Your task to perform on an android device: Open Google Maps and go to "Timeline" Image 0: 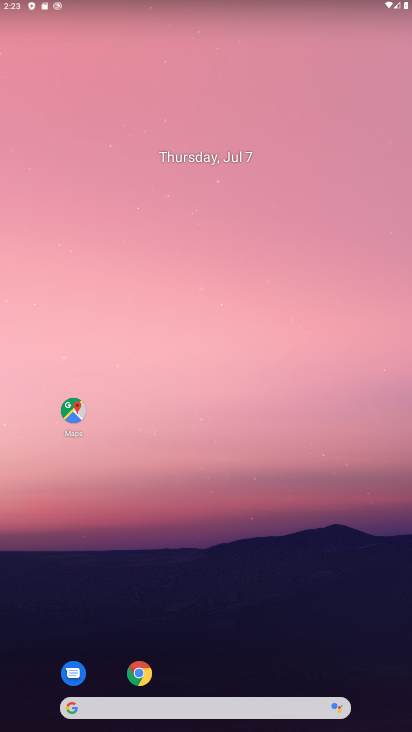
Step 0: drag from (206, 676) to (173, 111)
Your task to perform on an android device: Open Google Maps and go to "Timeline" Image 1: 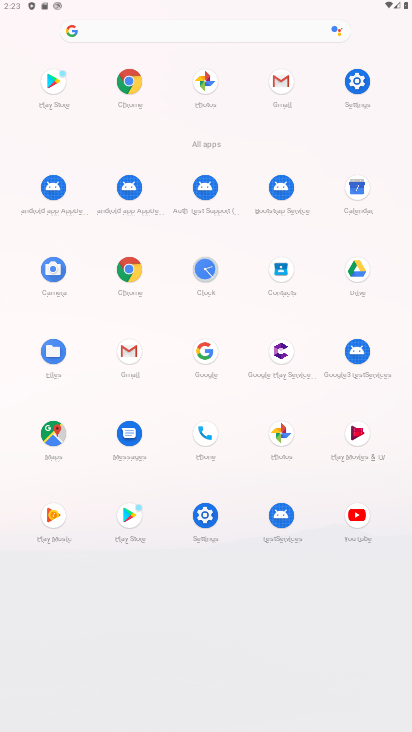
Step 1: click (60, 438)
Your task to perform on an android device: Open Google Maps and go to "Timeline" Image 2: 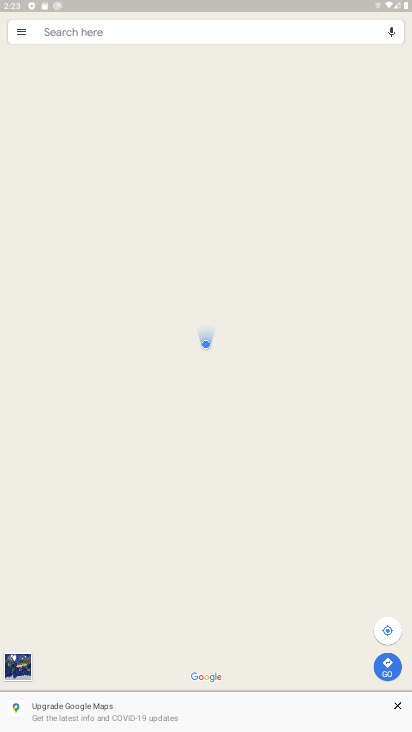
Step 2: click (21, 29)
Your task to perform on an android device: Open Google Maps and go to "Timeline" Image 3: 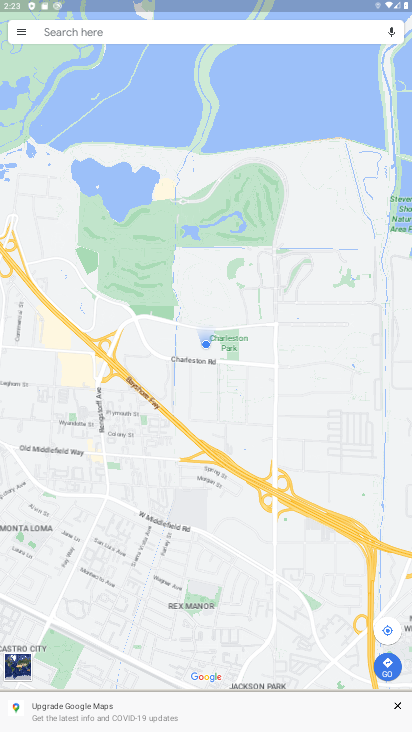
Step 3: click (22, 29)
Your task to perform on an android device: Open Google Maps and go to "Timeline" Image 4: 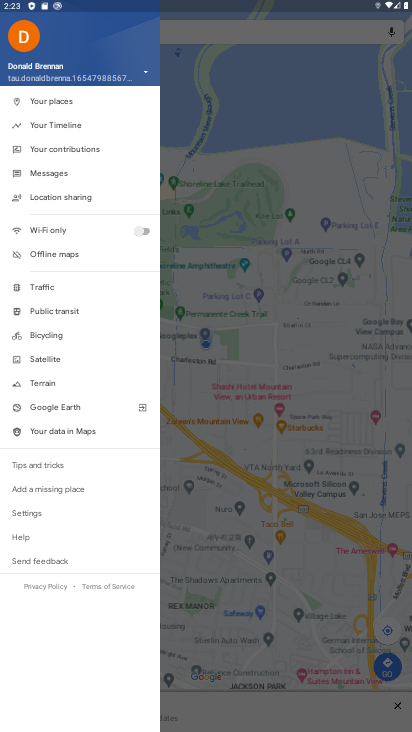
Step 4: click (65, 124)
Your task to perform on an android device: Open Google Maps and go to "Timeline" Image 5: 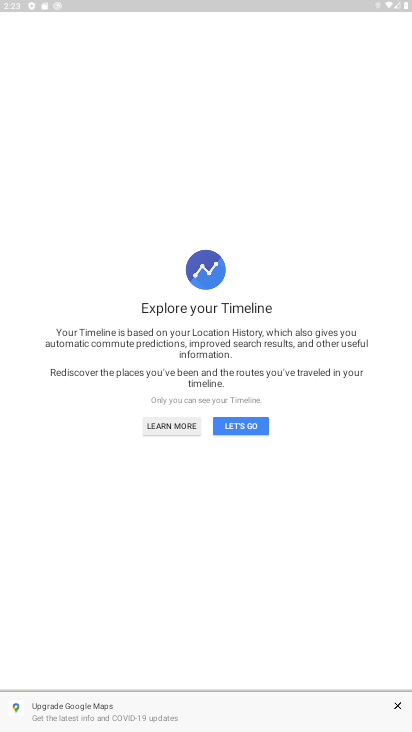
Step 5: click (247, 426)
Your task to perform on an android device: Open Google Maps and go to "Timeline" Image 6: 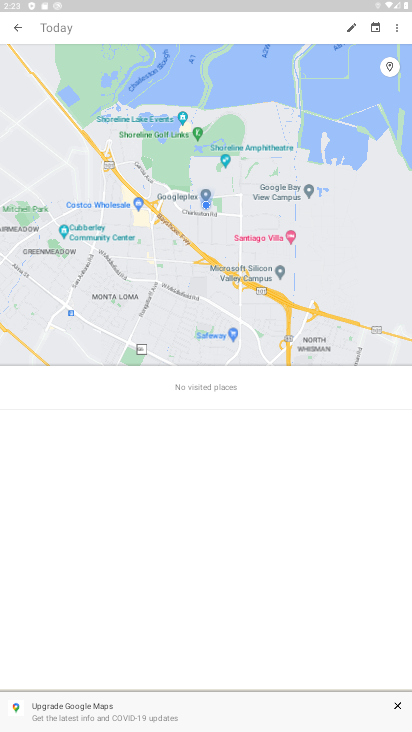
Step 6: task complete